Your task to perform on an android device: add a contact Image 0: 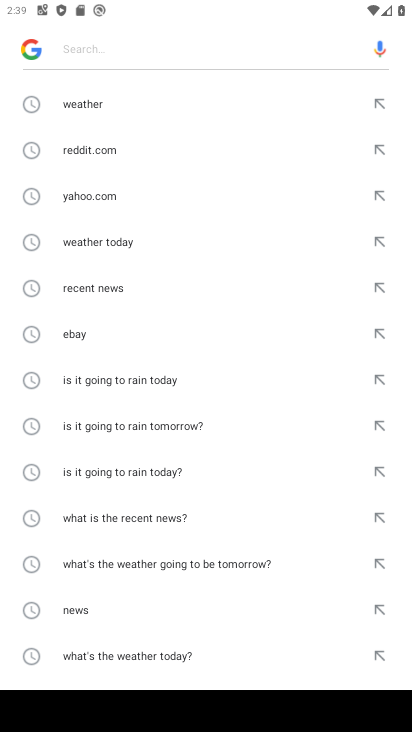
Step 0: press home button
Your task to perform on an android device: add a contact Image 1: 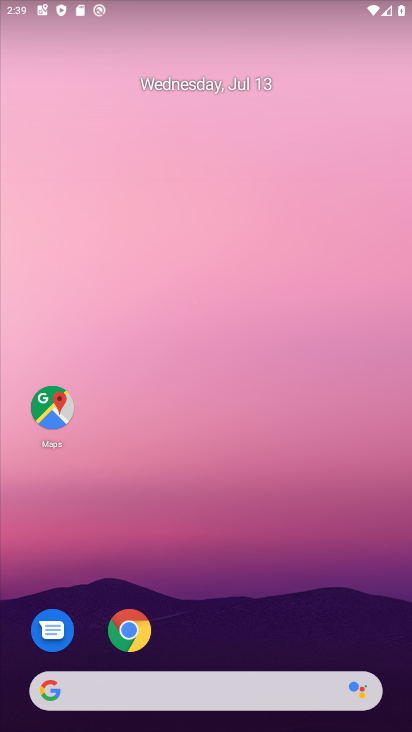
Step 1: drag from (337, 624) to (346, 163)
Your task to perform on an android device: add a contact Image 2: 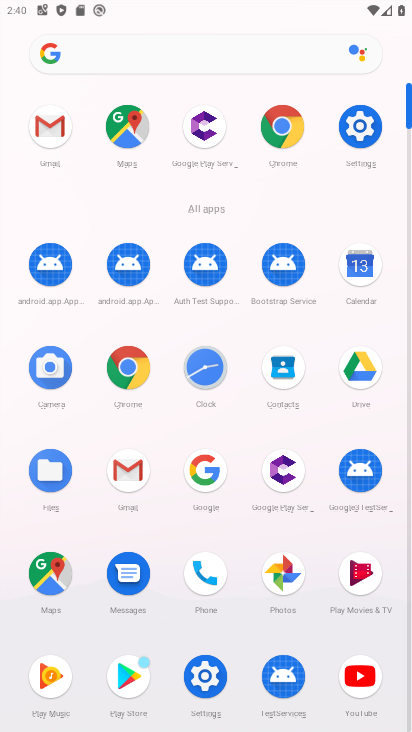
Step 2: click (283, 372)
Your task to perform on an android device: add a contact Image 3: 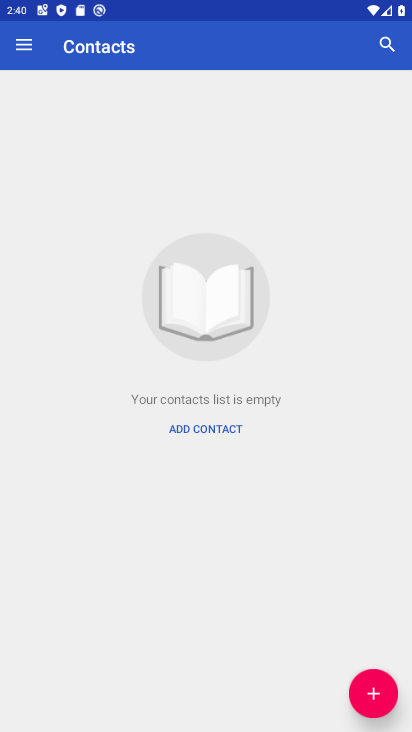
Step 3: click (380, 686)
Your task to perform on an android device: add a contact Image 4: 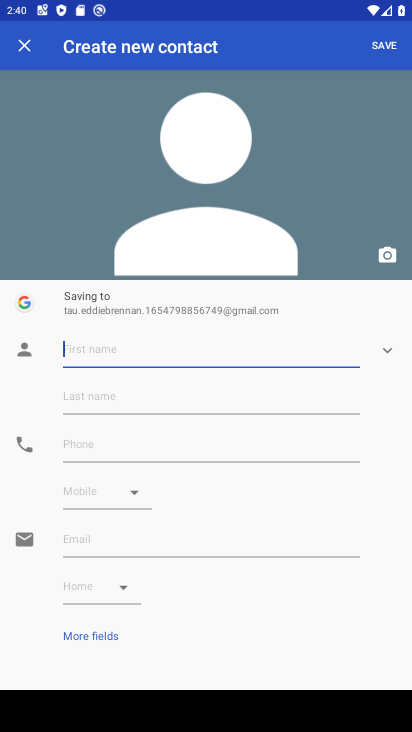
Step 4: type "fav"
Your task to perform on an android device: add a contact Image 5: 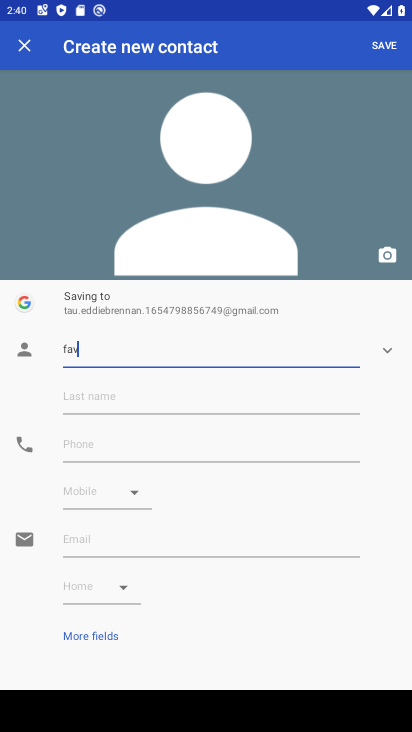
Step 5: click (166, 454)
Your task to perform on an android device: add a contact Image 6: 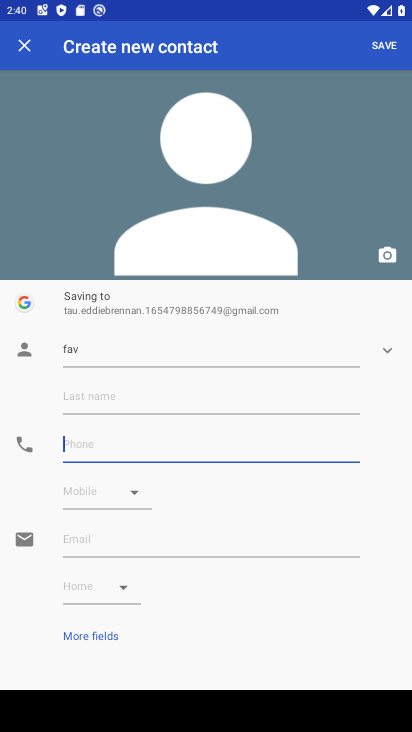
Step 6: type "12345667889"
Your task to perform on an android device: add a contact Image 7: 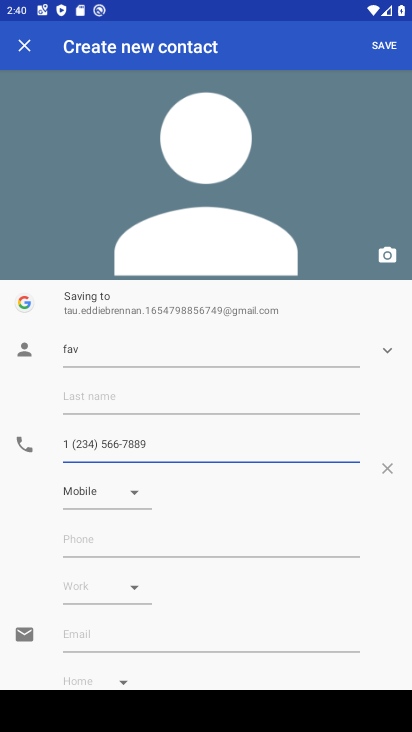
Step 7: click (376, 40)
Your task to perform on an android device: add a contact Image 8: 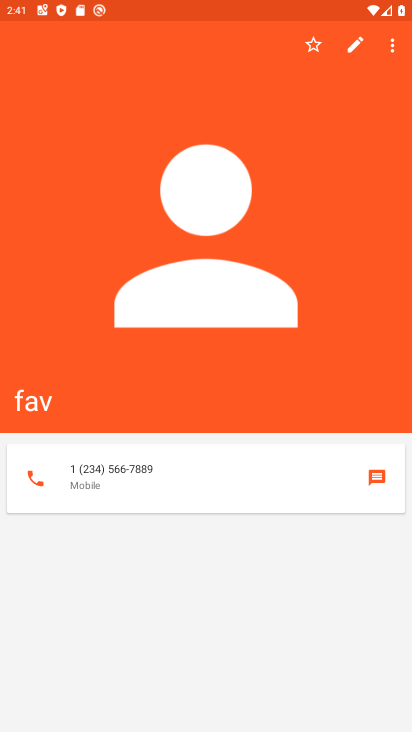
Step 8: task complete